Your task to perform on an android device: turn on the 12-hour format for clock Image 0: 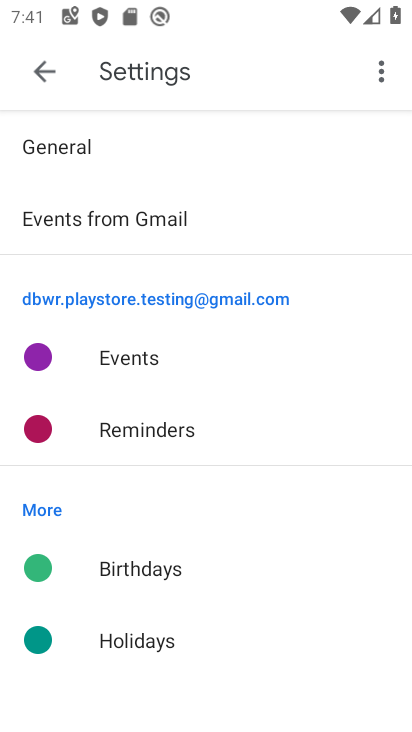
Step 0: press home button
Your task to perform on an android device: turn on the 12-hour format for clock Image 1: 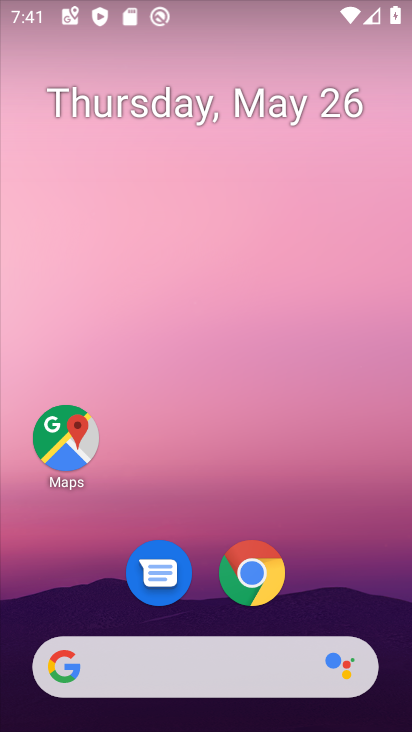
Step 1: drag from (213, 624) to (167, 16)
Your task to perform on an android device: turn on the 12-hour format for clock Image 2: 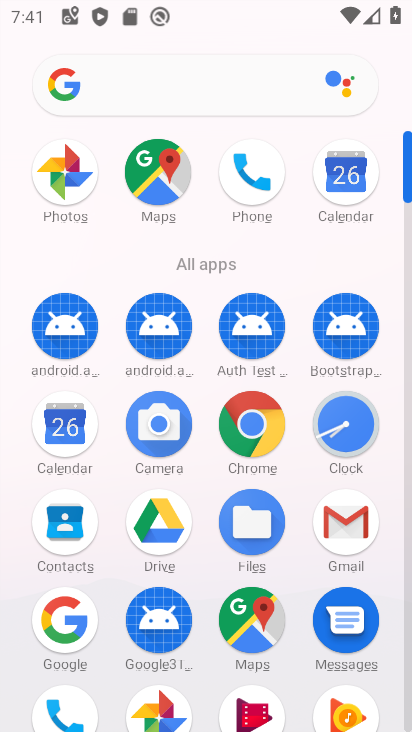
Step 2: click (358, 431)
Your task to perform on an android device: turn on the 12-hour format for clock Image 3: 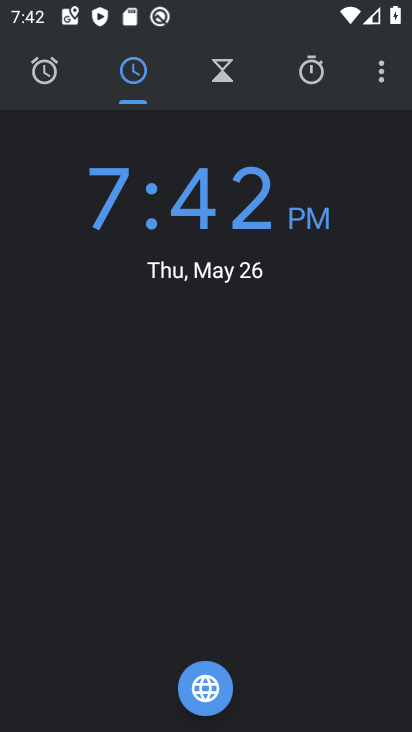
Step 3: click (377, 78)
Your task to perform on an android device: turn on the 12-hour format for clock Image 4: 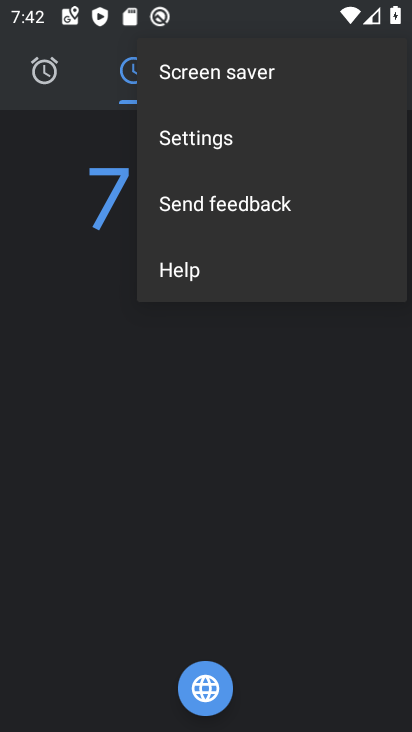
Step 4: click (175, 137)
Your task to perform on an android device: turn on the 12-hour format for clock Image 5: 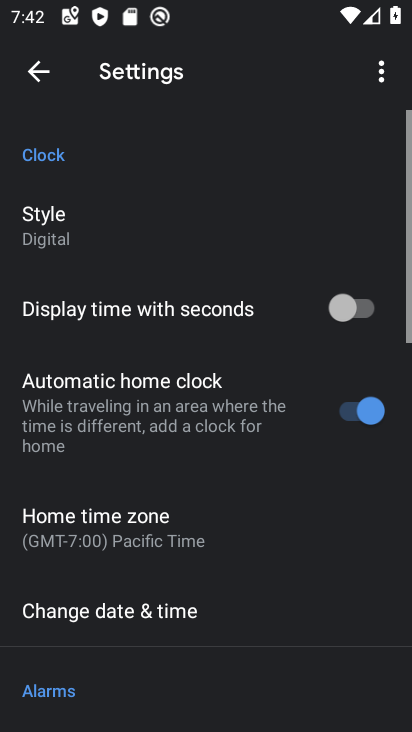
Step 5: drag from (222, 493) to (146, 34)
Your task to perform on an android device: turn on the 12-hour format for clock Image 6: 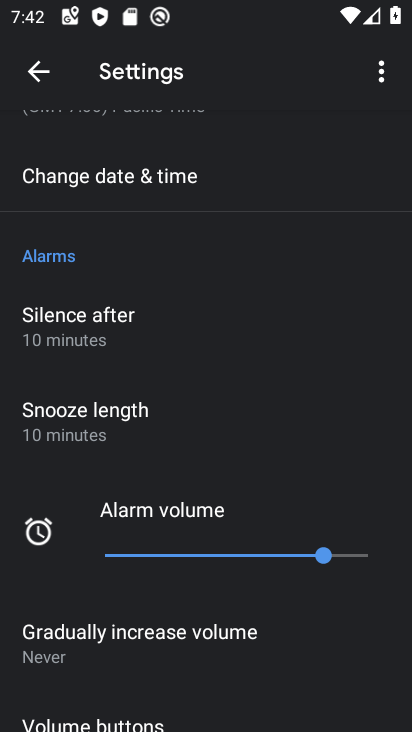
Step 6: drag from (179, 455) to (124, 47)
Your task to perform on an android device: turn on the 12-hour format for clock Image 7: 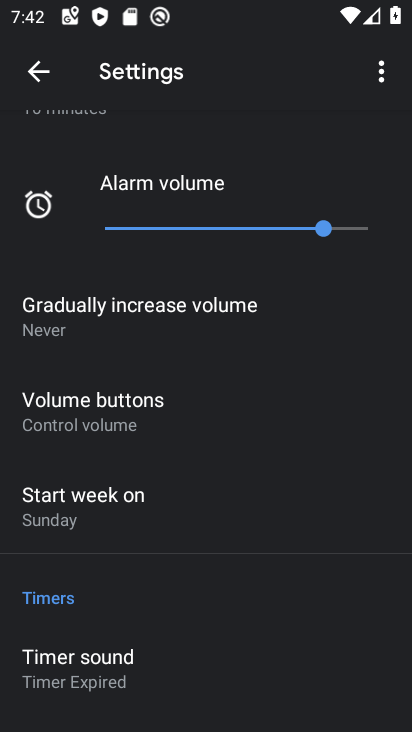
Step 7: drag from (184, 546) to (169, 96)
Your task to perform on an android device: turn on the 12-hour format for clock Image 8: 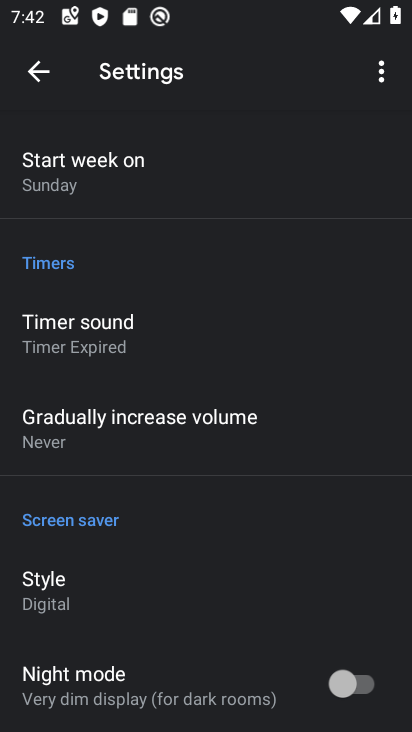
Step 8: drag from (204, 526) to (177, 247)
Your task to perform on an android device: turn on the 12-hour format for clock Image 9: 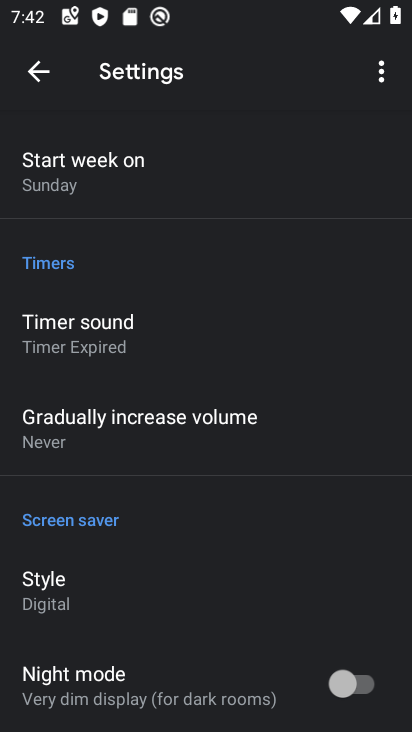
Step 9: drag from (153, 199) to (219, 678)
Your task to perform on an android device: turn on the 12-hour format for clock Image 10: 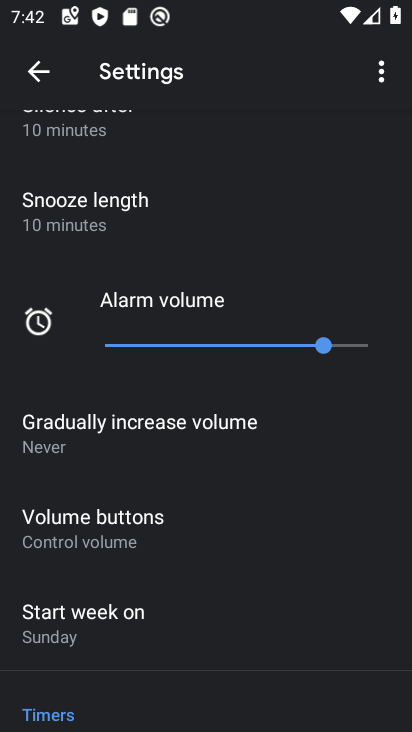
Step 10: drag from (147, 208) to (181, 660)
Your task to perform on an android device: turn on the 12-hour format for clock Image 11: 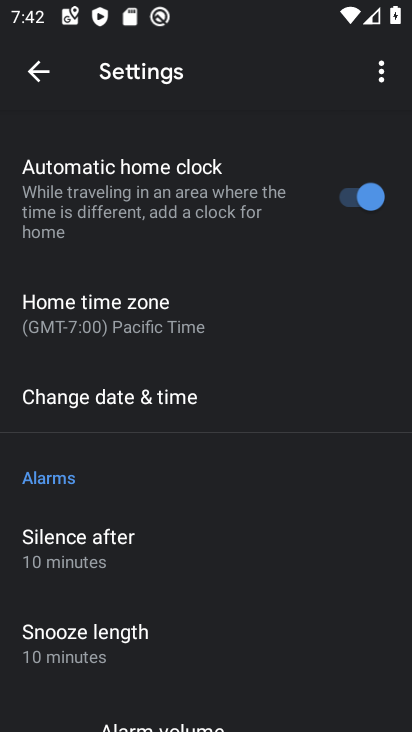
Step 11: click (164, 406)
Your task to perform on an android device: turn on the 12-hour format for clock Image 12: 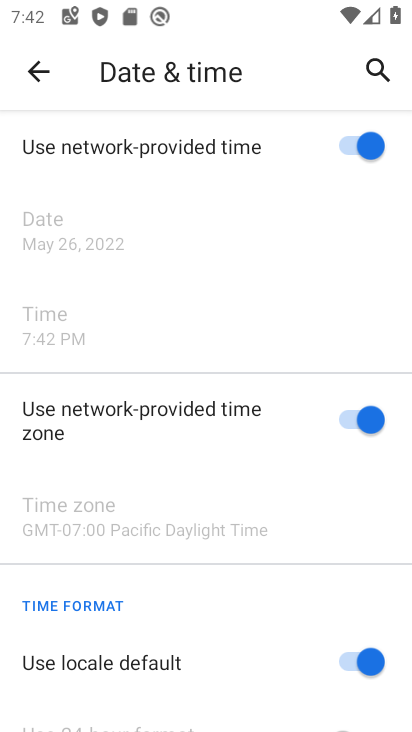
Step 12: task complete